Your task to perform on an android device: uninstall "Google Maps" Image 0: 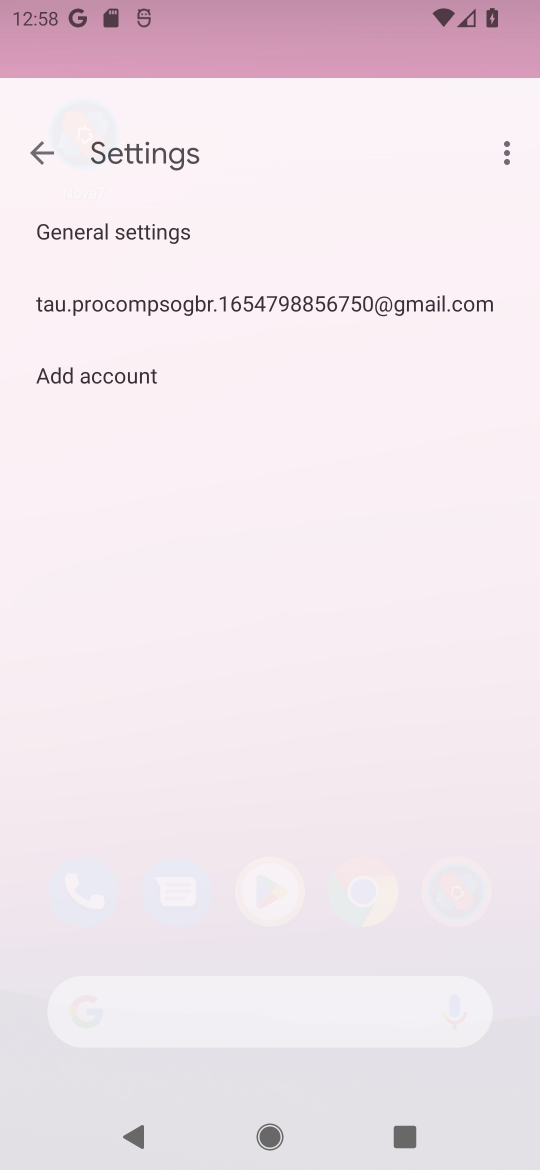
Step 0: press back button
Your task to perform on an android device: uninstall "Google Maps" Image 1: 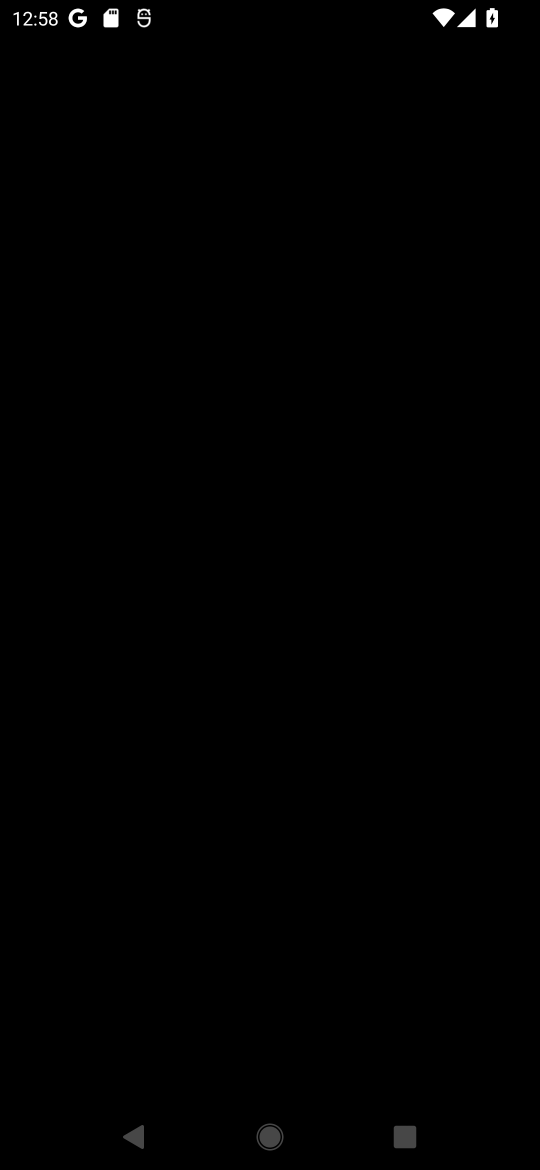
Step 1: press back button
Your task to perform on an android device: uninstall "Google Maps" Image 2: 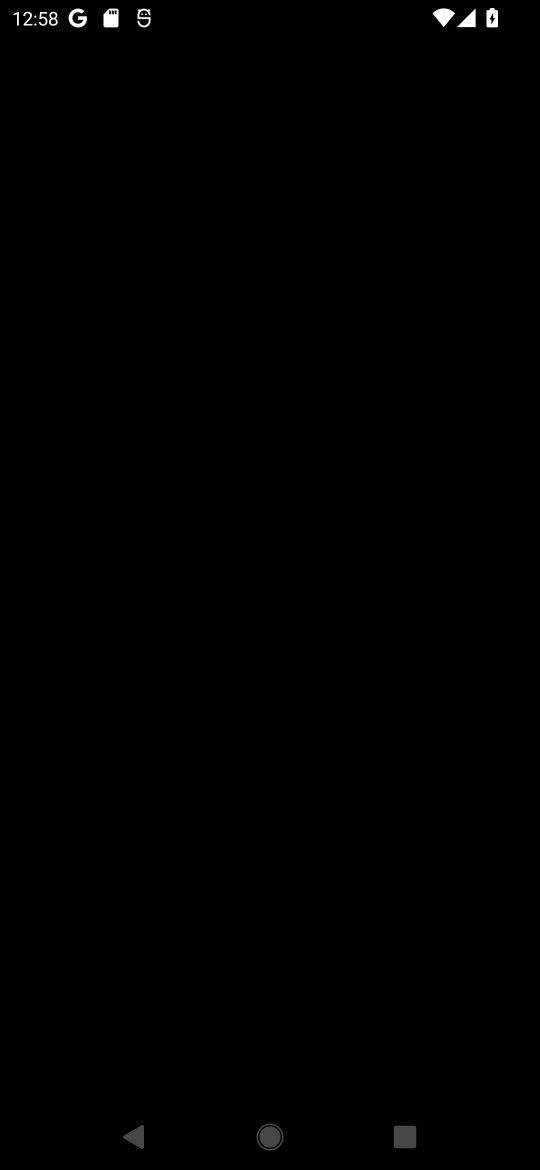
Step 2: press home button
Your task to perform on an android device: uninstall "Google Maps" Image 3: 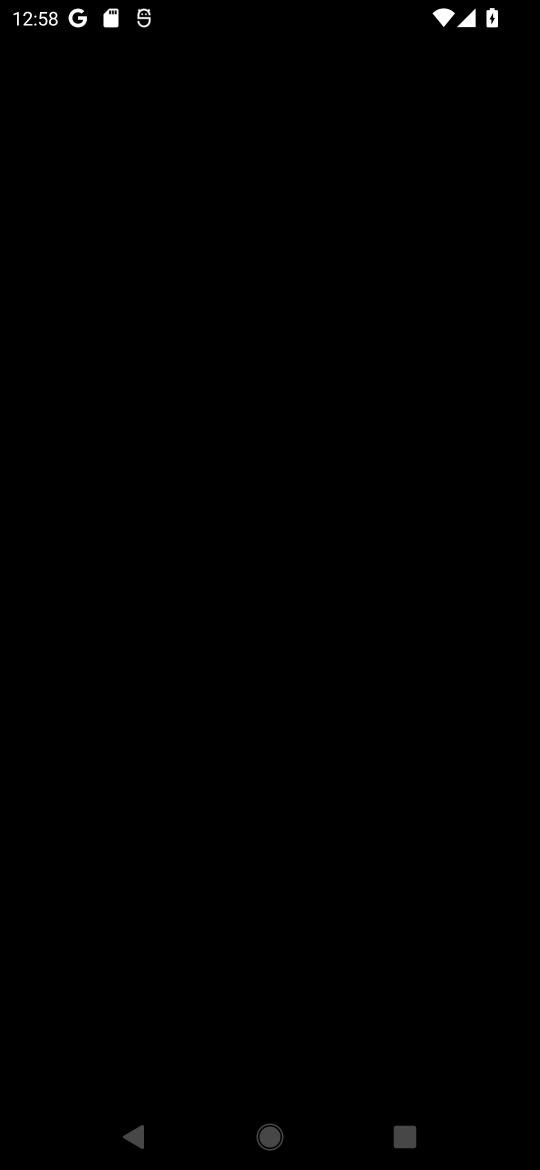
Step 3: press home button
Your task to perform on an android device: uninstall "Google Maps" Image 4: 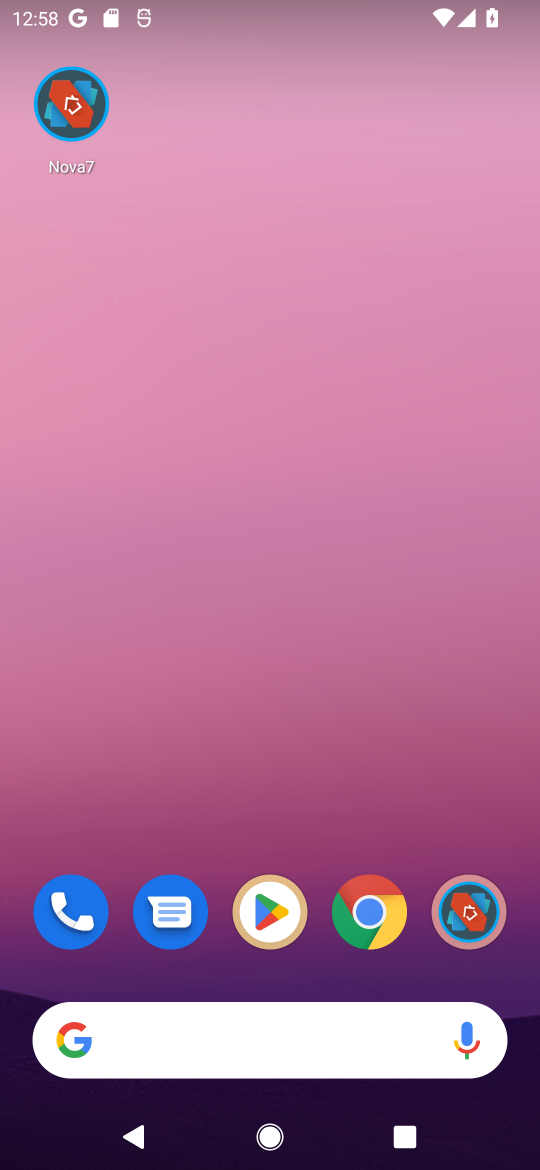
Step 4: click (264, 931)
Your task to perform on an android device: uninstall "Google Maps" Image 5: 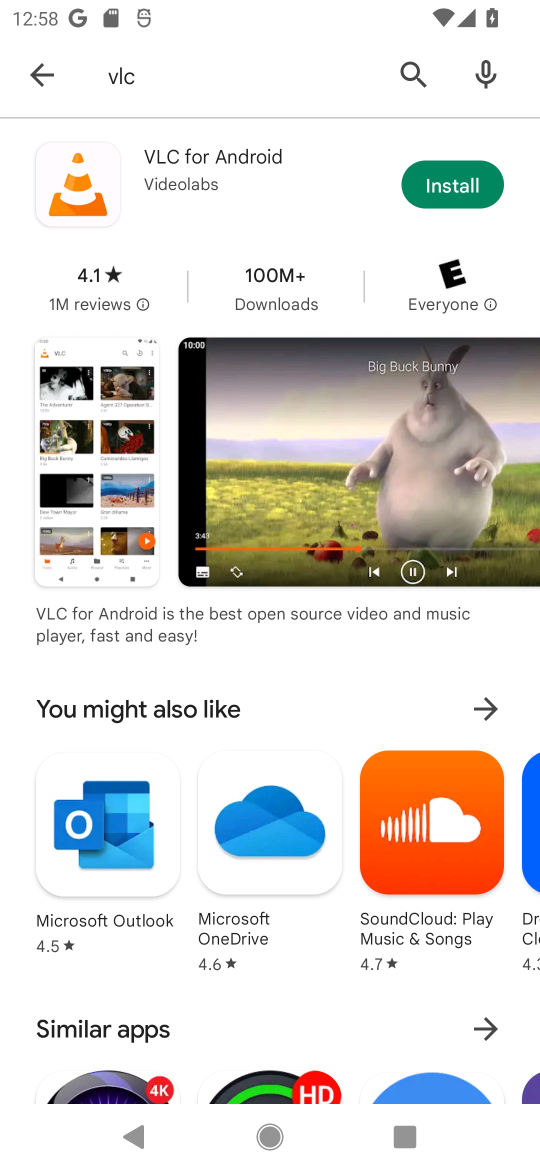
Step 5: click (400, 84)
Your task to perform on an android device: uninstall "Google Maps" Image 6: 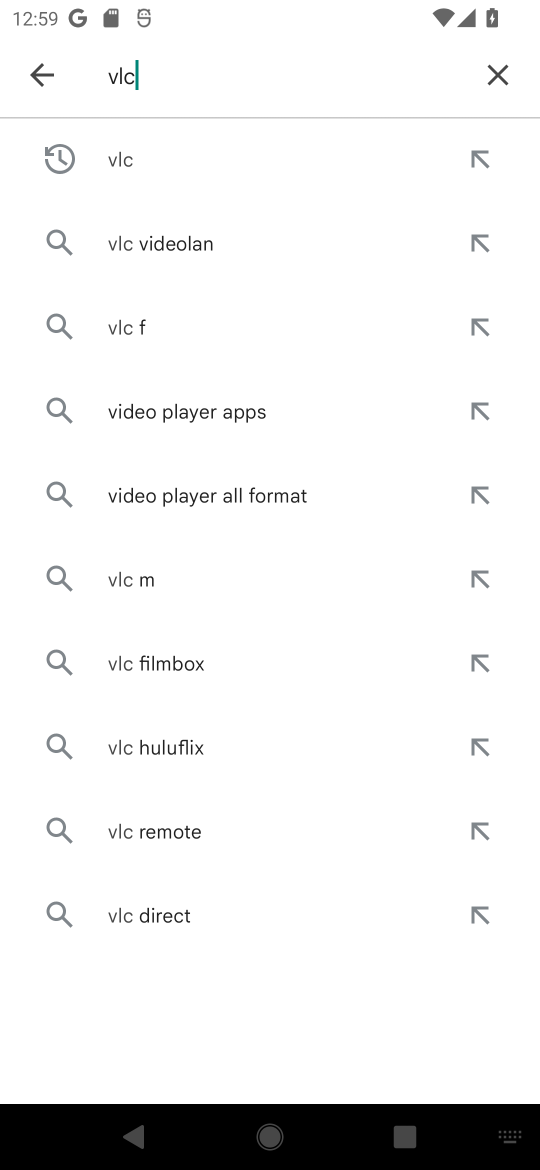
Step 6: click (497, 68)
Your task to perform on an android device: uninstall "Google Maps" Image 7: 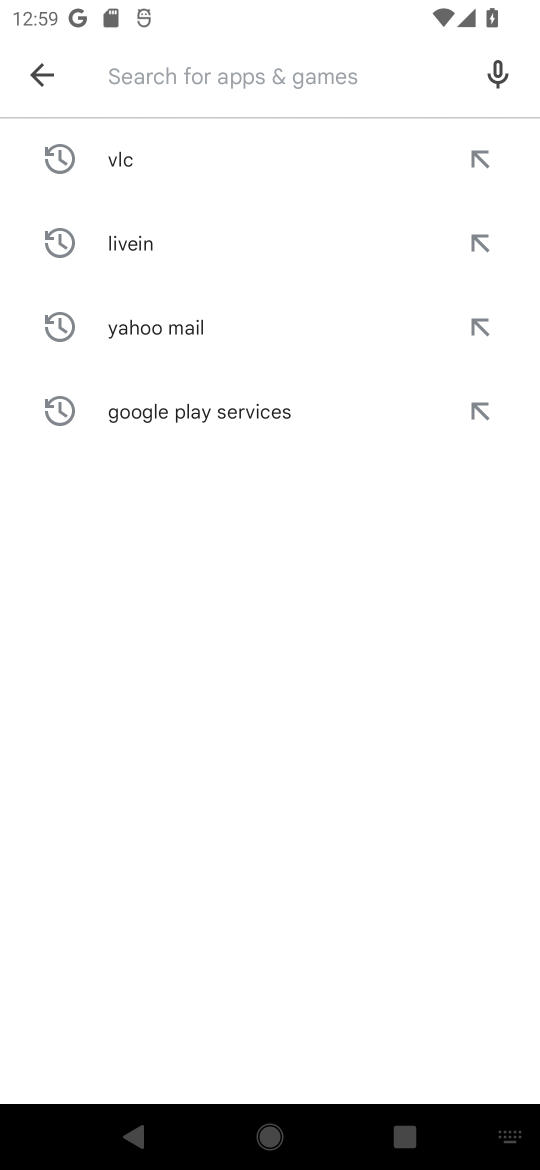
Step 7: click (278, 81)
Your task to perform on an android device: uninstall "Google Maps" Image 8: 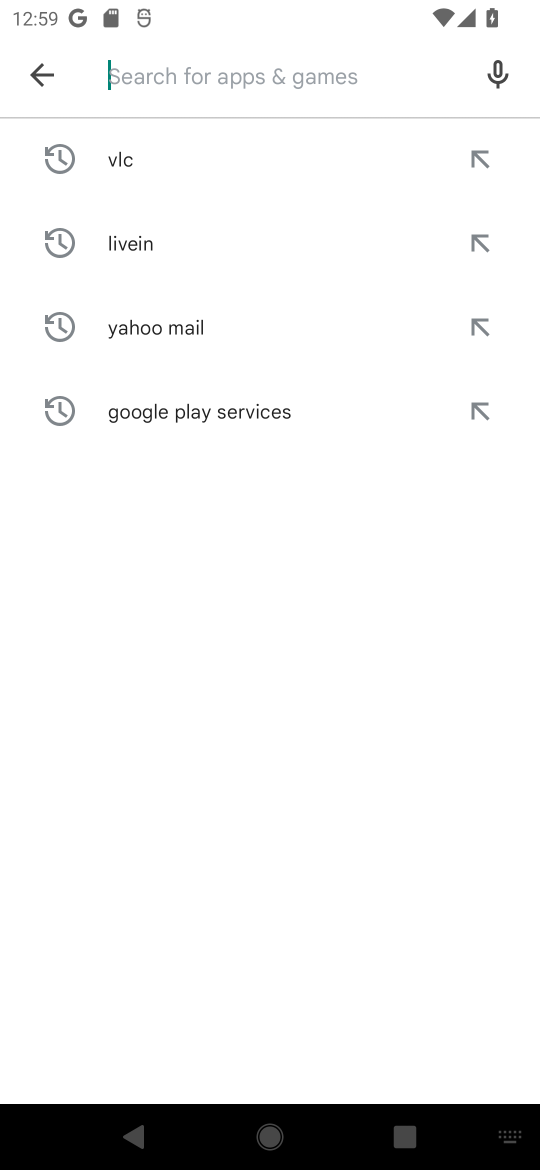
Step 8: click (333, 751)
Your task to perform on an android device: uninstall "Google Maps" Image 9: 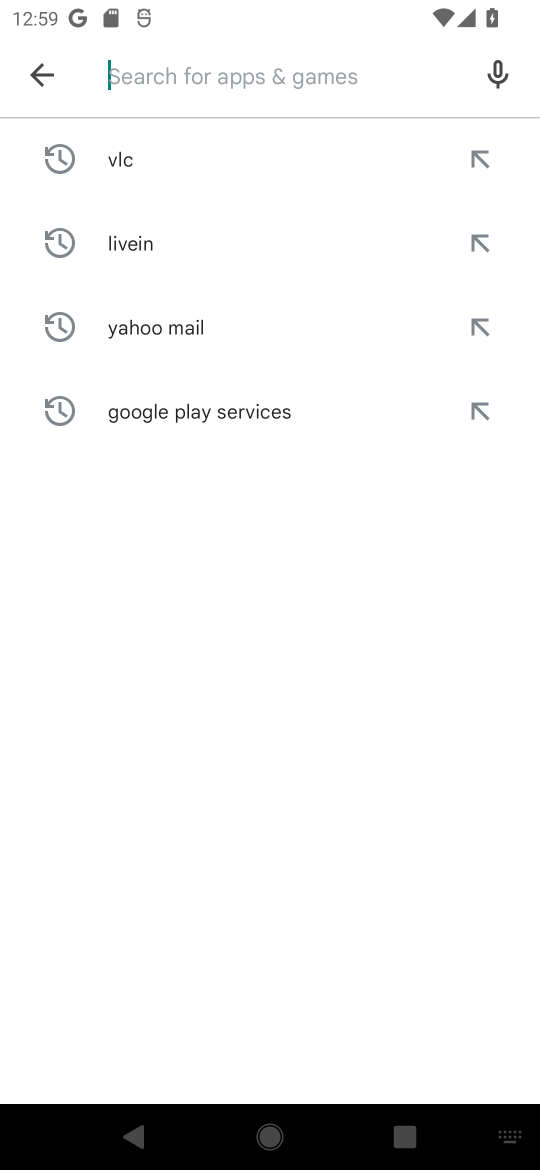
Step 9: type "Google Maps"
Your task to perform on an android device: uninstall "Google Maps" Image 10: 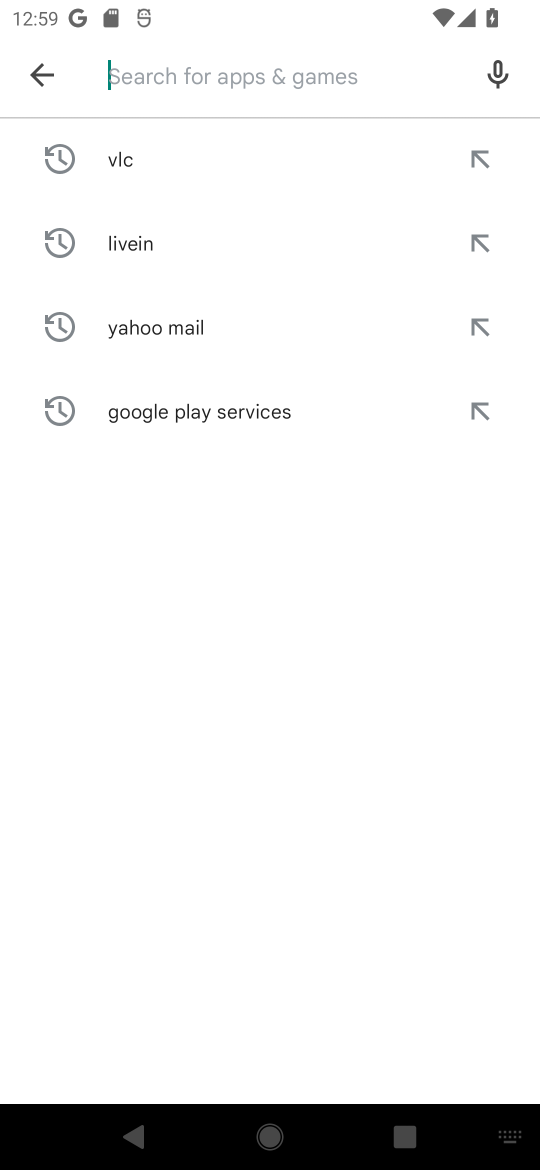
Step 10: click (333, 751)
Your task to perform on an android device: uninstall "Google Maps" Image 11: 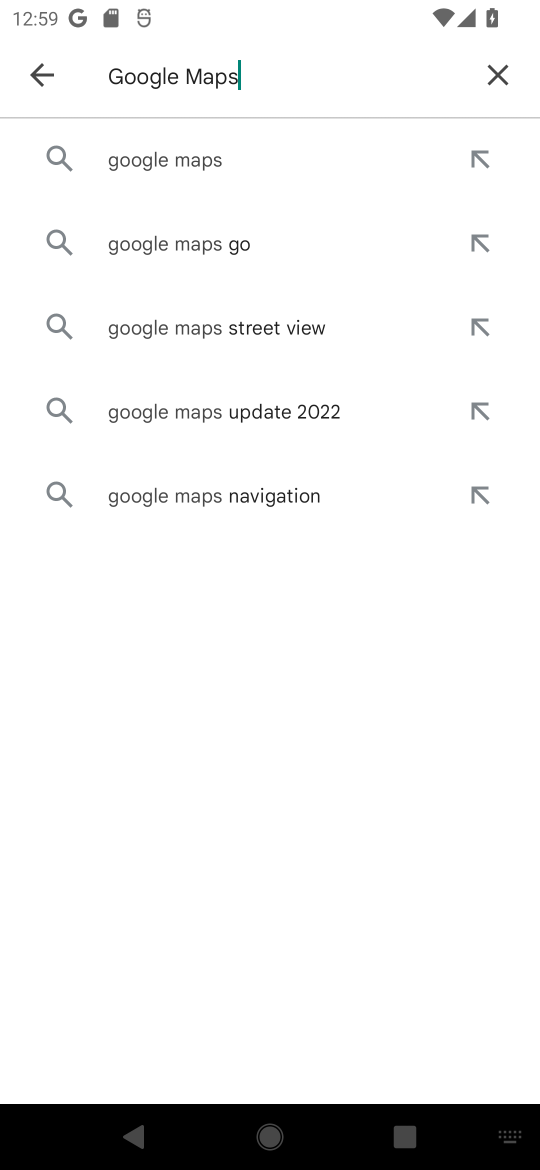
Step 11: click (209, 144)
Your task to perform on an android device: uninstall "Google Maps" Image 12: 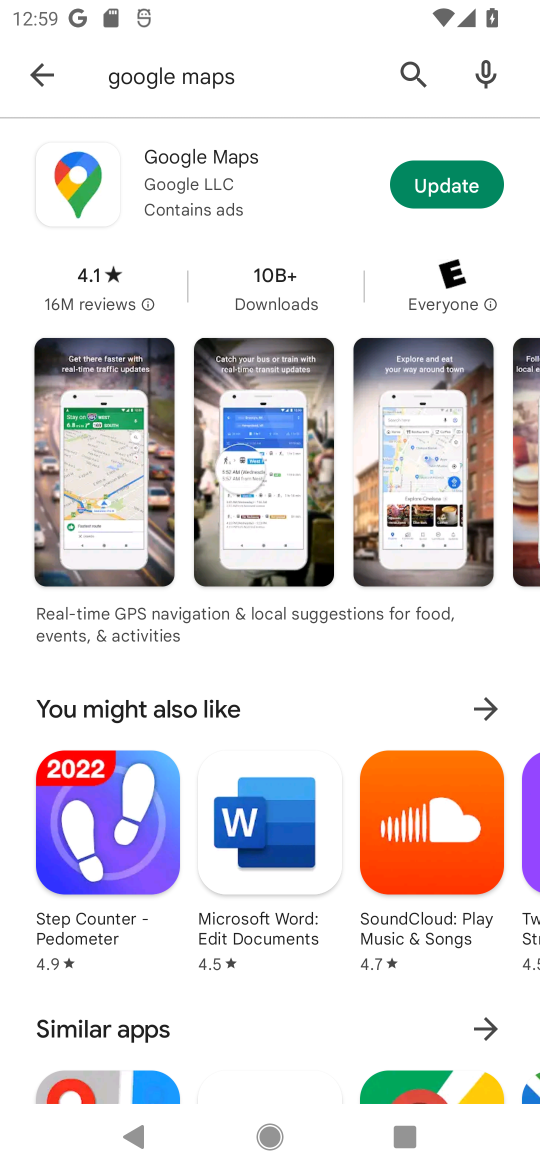
Step 12: click (219, 183)
Your task to perform on an android device: uninstall "Google Maps" Image 13: 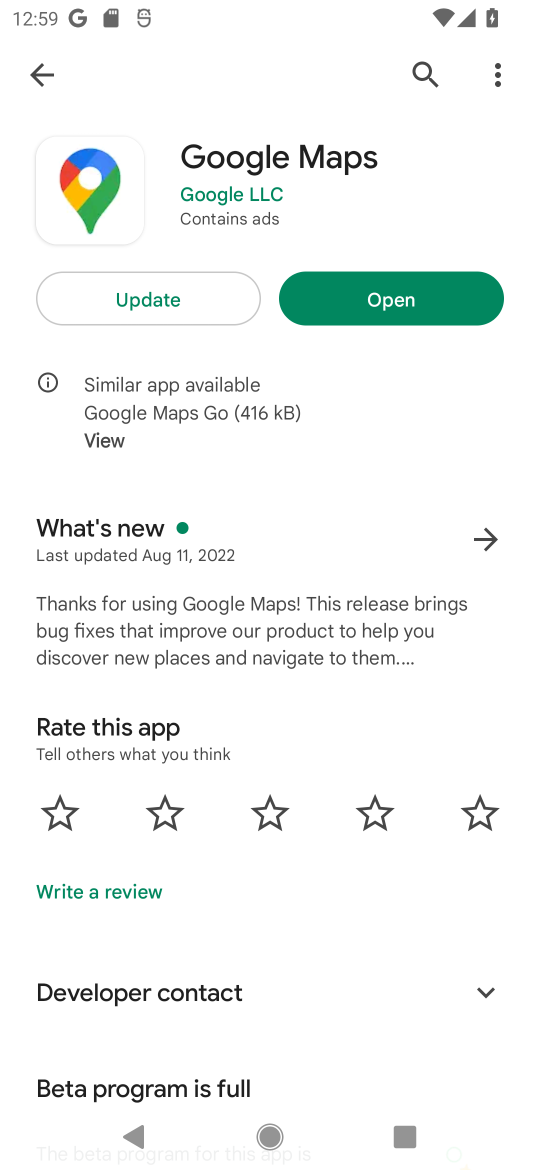
Step 13: task complete